Your task to perform on an android device: Open Chrome and go to settings Image 0: 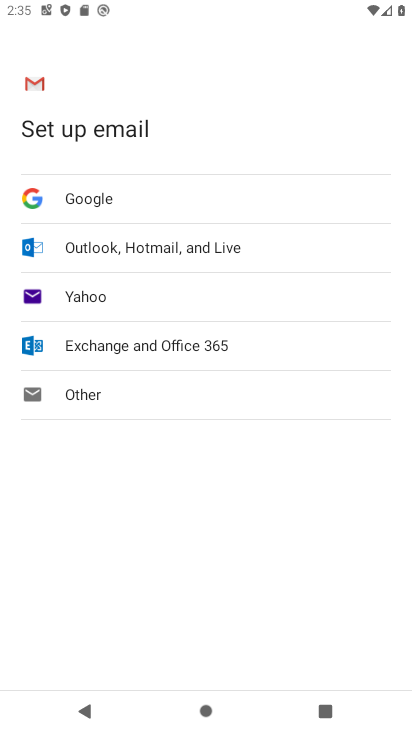
Step 0: press home button
Your task to perform on an android device: Open Chrome and go to settings Image 1: 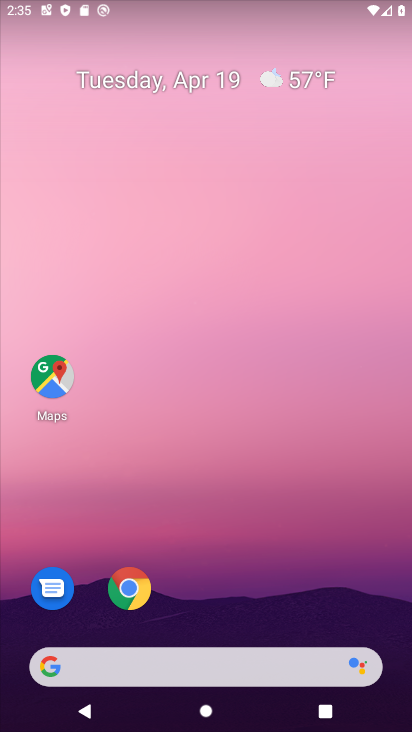
Step 1: click (123, 598)
Your task to perform on an android device: Open Chrome and go to settings Image 2: 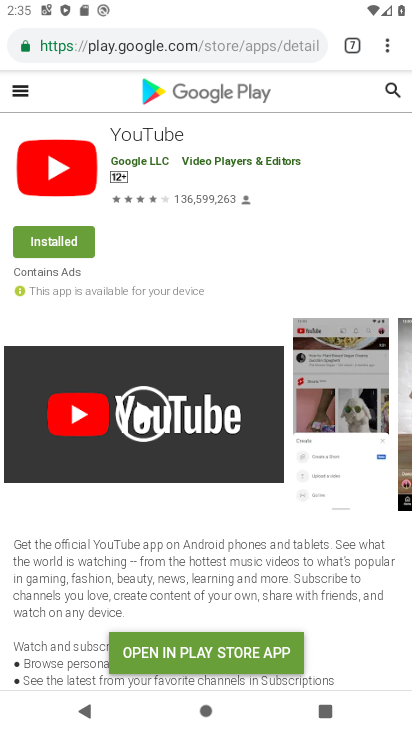
Step 2: click (384, 41)
Your task to perform on an android device: Open Chrome and go to settings Image 3: 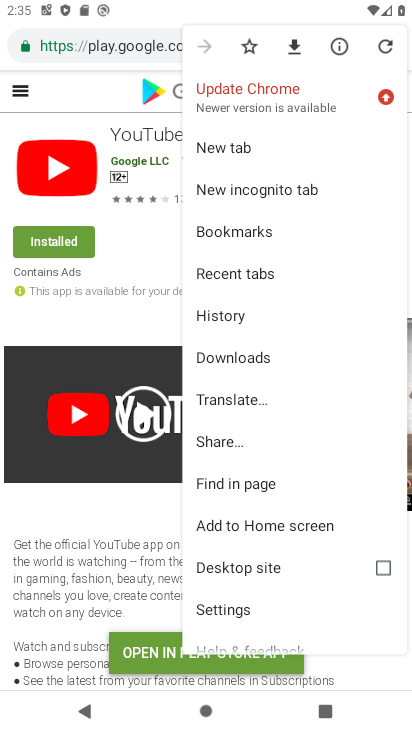
Step 3: click (293, 612)
Your task to perform on an android device: Open Chrome and go to settings Image 4: 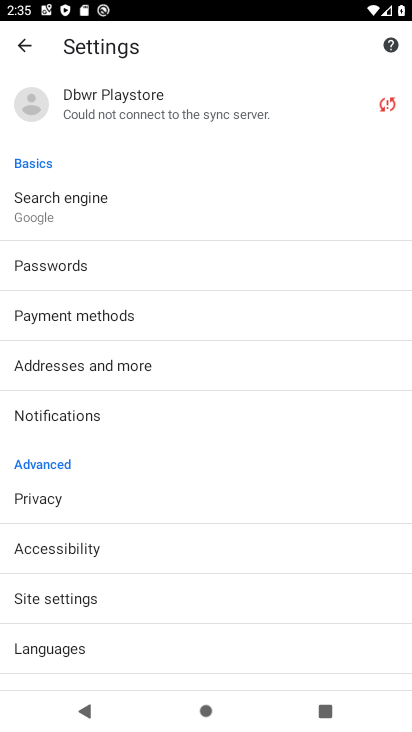
Step 4: task complete